Your task to perform on an android device: check storage Image 0: 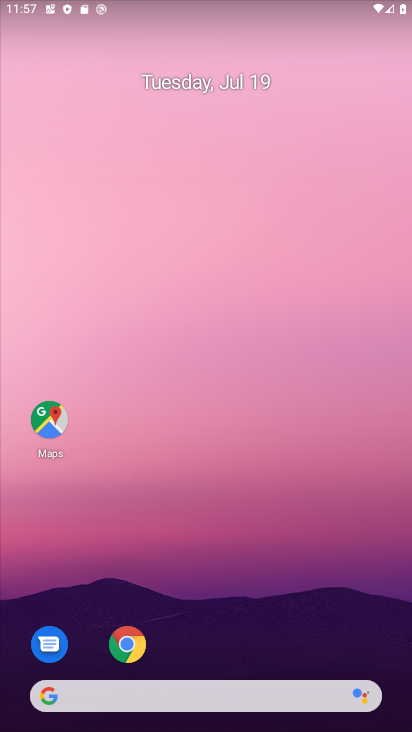
Step 0: press home button
Your task to perform on an android device: check storage Image 1: 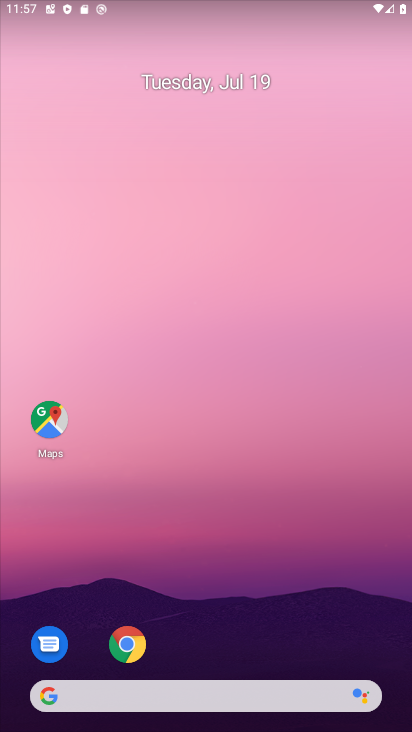
Step 1: drag from (321, 598) to (320, 94)
Your task to perform on an android device: check storage Image 2: 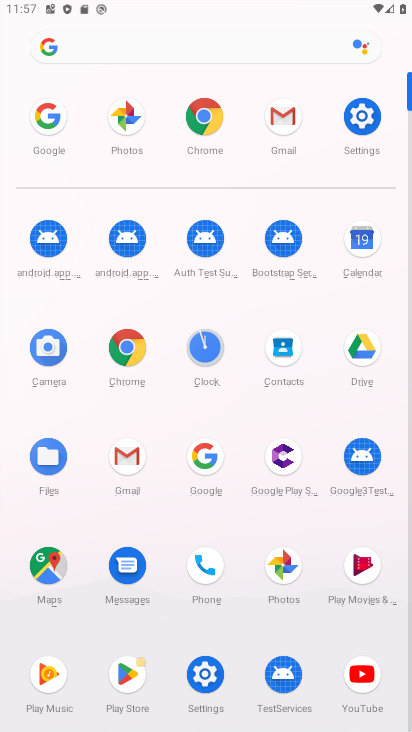
Step 2: click (354, 118)
Your task to perform on an android device: check storage Image 3: 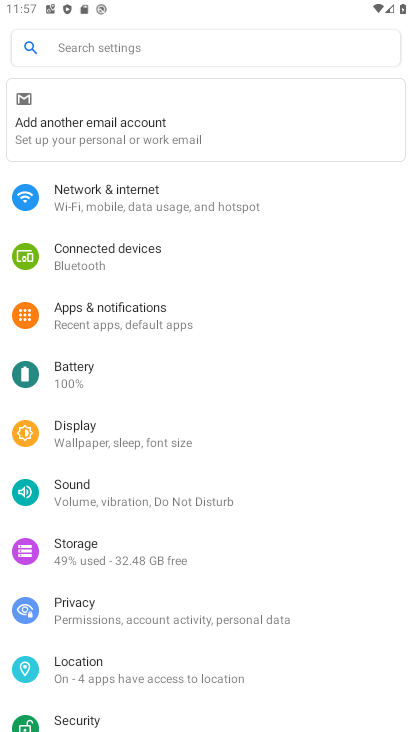
Step 3: click (100, 539)
Your task to perform on an android device: check storage Image 4: 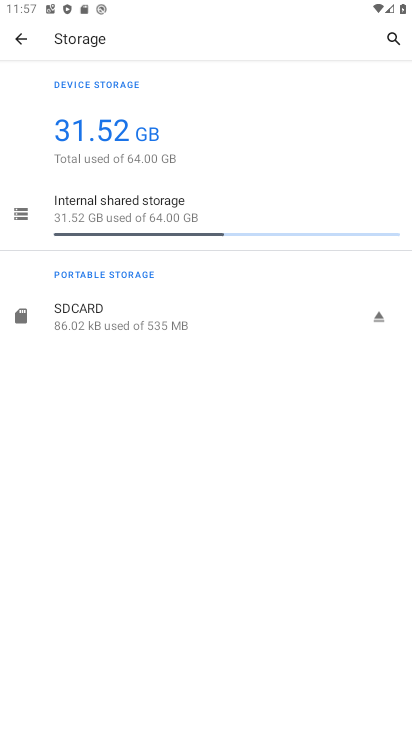
Step 4: task complete